Your task to perform on an android device: Show me popular games on the Play Store Image 0: 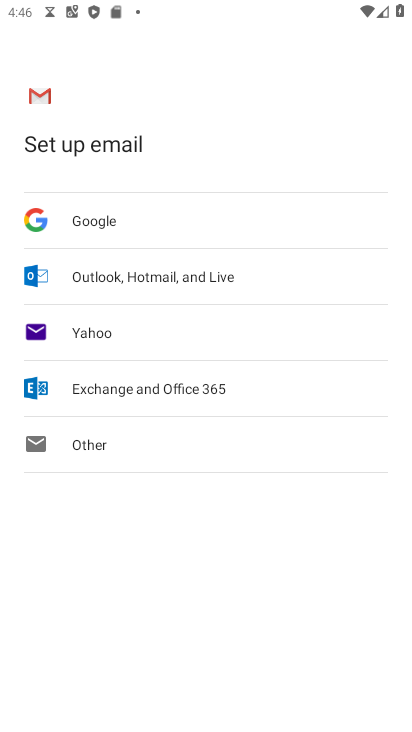
Step 0: press home button
Your task to perform on an android device: Show me popular games on the Play Store Image 1: 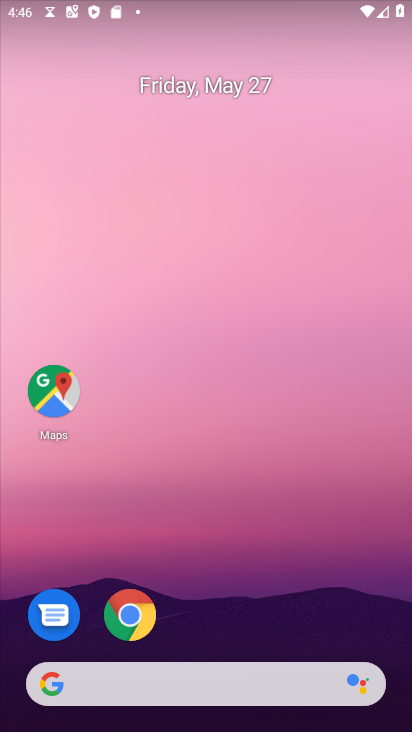
Step 1: drag from (280, 583) to (252, 40)
Your task to perform on an android device: Show me popular games on the Play Store Image 2: 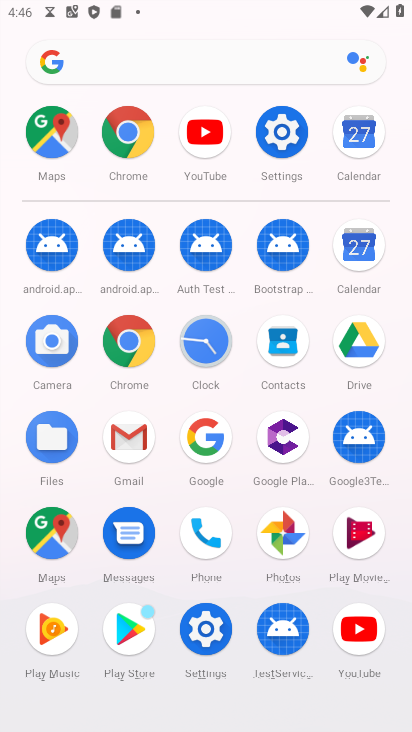
Step 2: click (135, 632)
Your task to perform on an android device: Show me popular games on the Play Store Image 3: 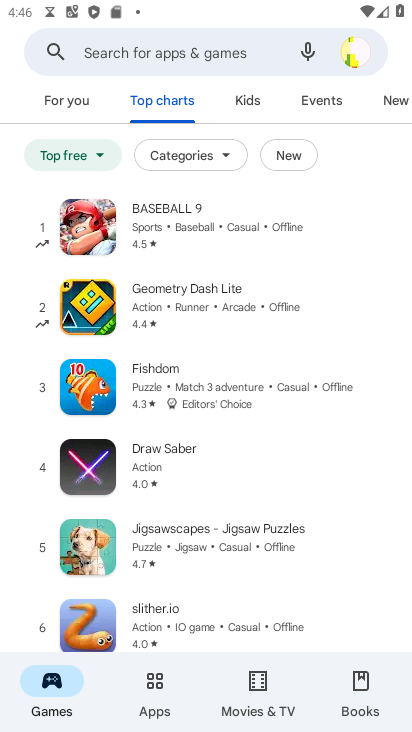
Step 3: task complete